Your task to perform on an android device: turn on wifi Image 0: 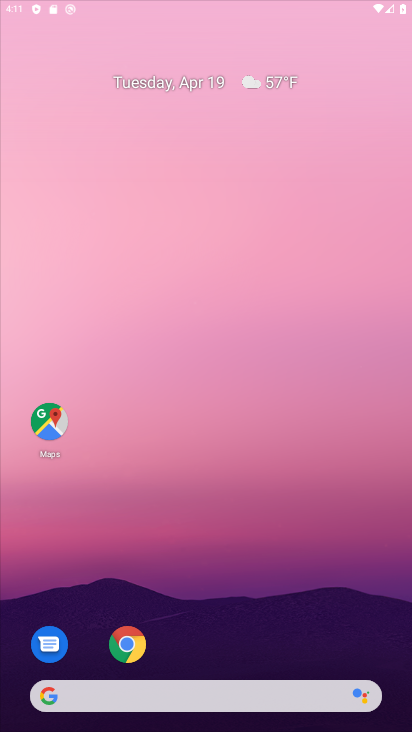
Step 0: click (260, 245)
Your task to perform on an android device: turn on wifi Image 1: 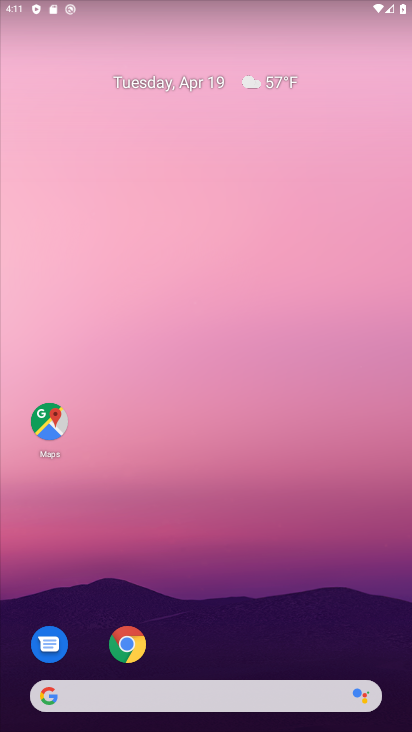
Step 1: drag from (312, 510) to (383, 85)
Your task to perform on an android device: turn on wifi Image 2: 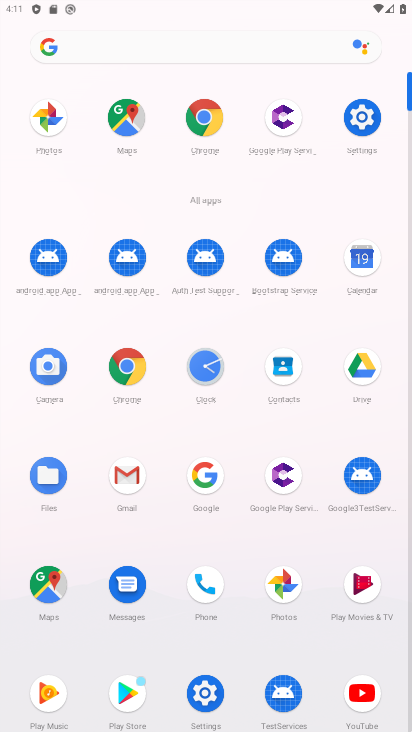
Step 2: click (370, 101)
Your task to perform on an android device: turn on wifi Image 3: 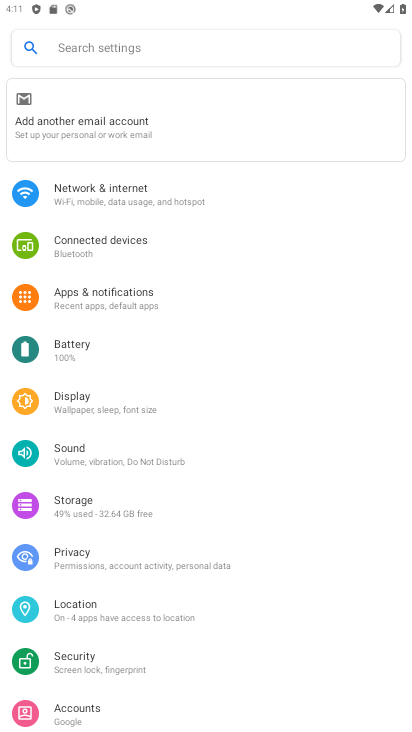
Step 3: click (48, 207)
Your task to perform on an android device: turn on wifi Image 4: 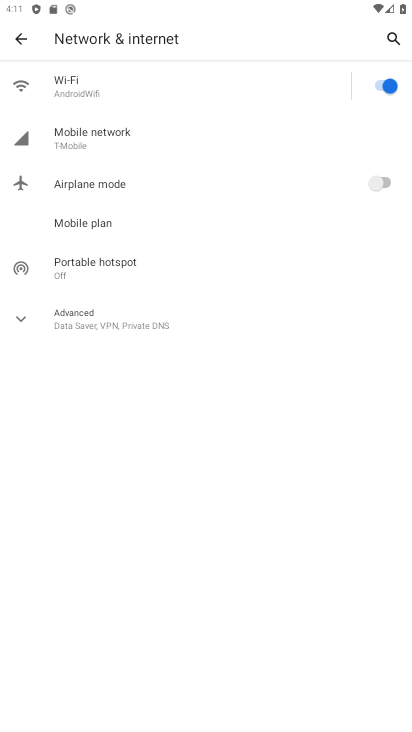
Step 4: task complete